Your task to perform on an android device: Open Chrome and go to settings Image 0: 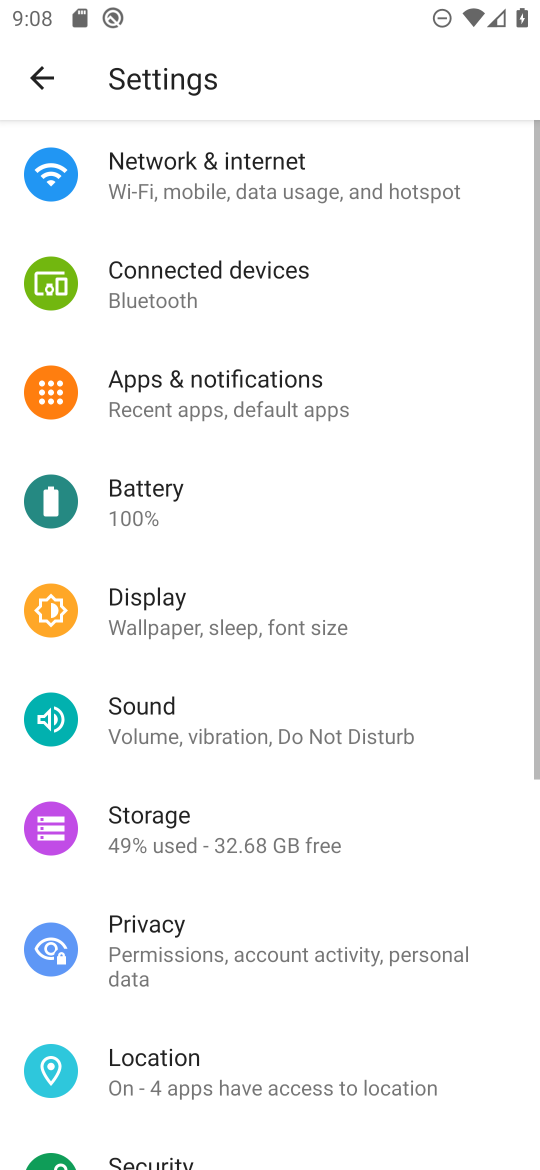
Step 0: press home button
Your task to perform on an android device: Open Chrome and go to settings Image 1: 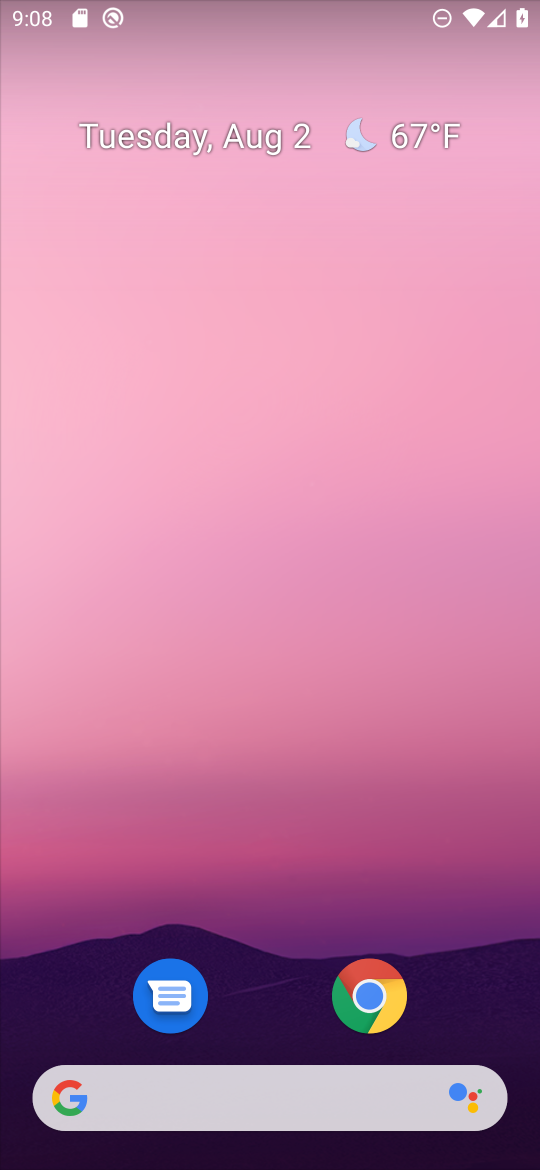
Step 1: drag from (277, 999) to (204, 63)
Your task to perform on an android device: Open Chrome and go to settings Image 2: 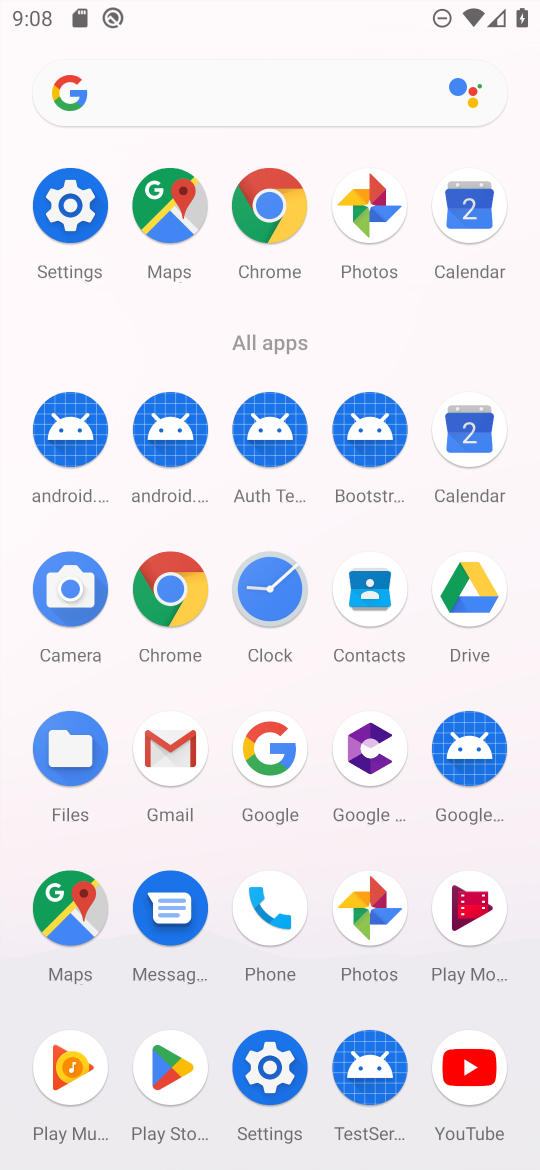
Step 2: click (265, 211)
Your task to perform on an android device: Open Chrome and go to settings Image 3: 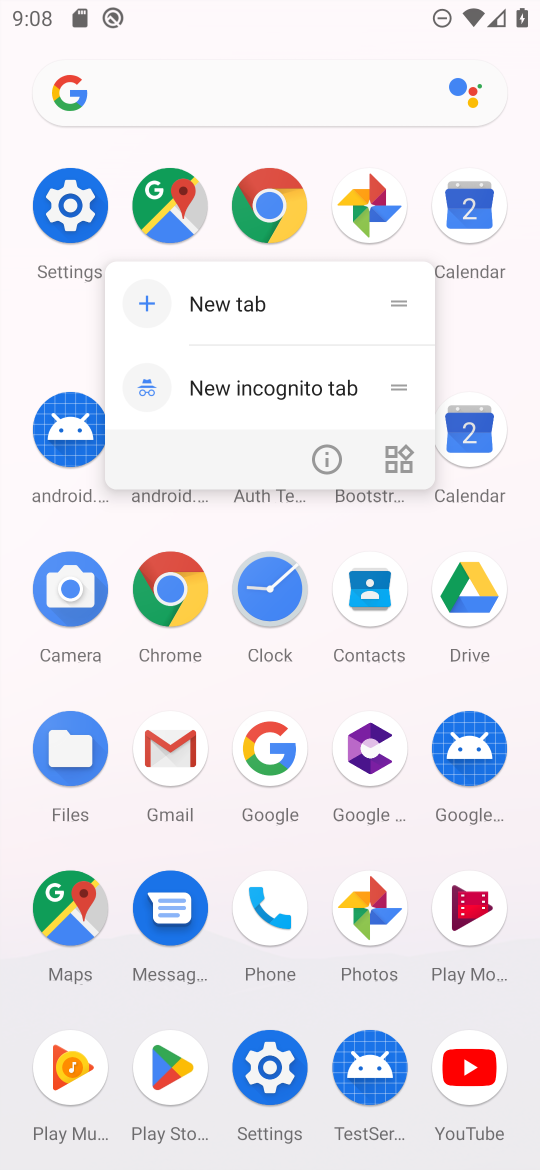
Step 3: click (275, 204)
Your task to perform on an android device: Open Chrome and go to settings Image 4: 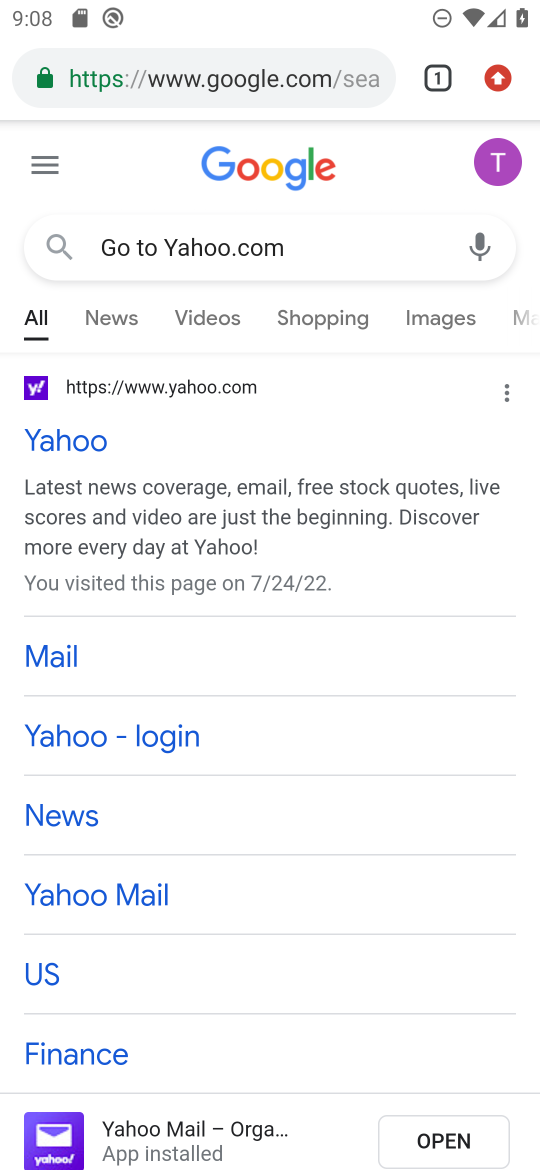
Step 4: task complete